Your task to perform on an android device: turn on location history Image 0: 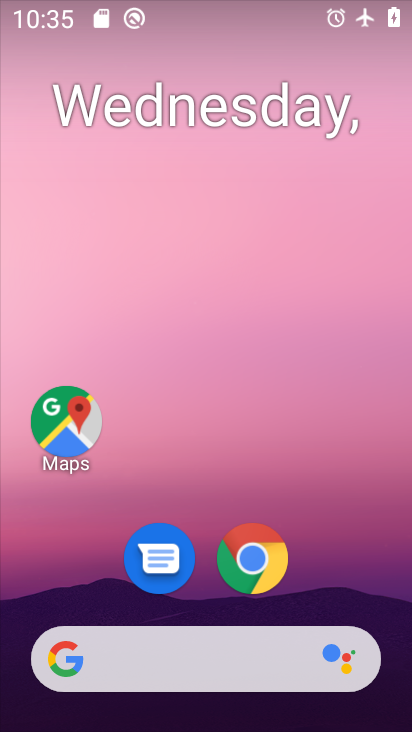
Step 0: drag from (331, 588) to (359, 120)
Your task to perform on an android device: turn on location history Image 1: 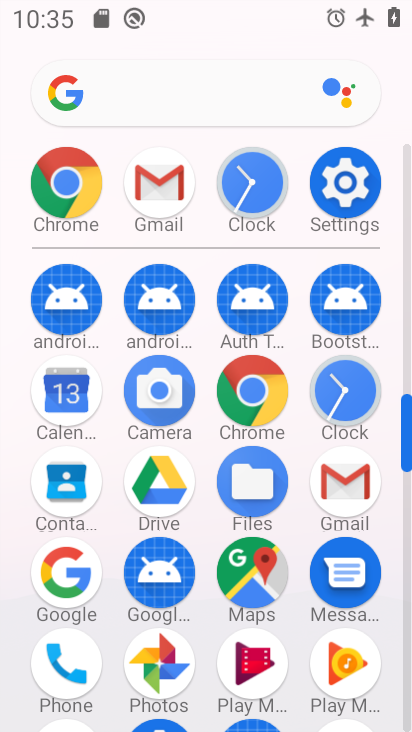
Step 1: click (351, 200)
Your task to perform on an android device: turn on location history Image 2: 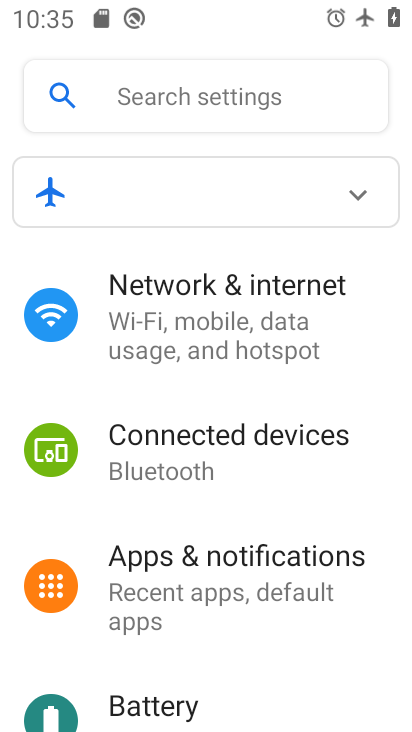
Step 2: drag from (354, 412) to (357, 332)
Your task to perform on an android device: turn on location history Image 3: 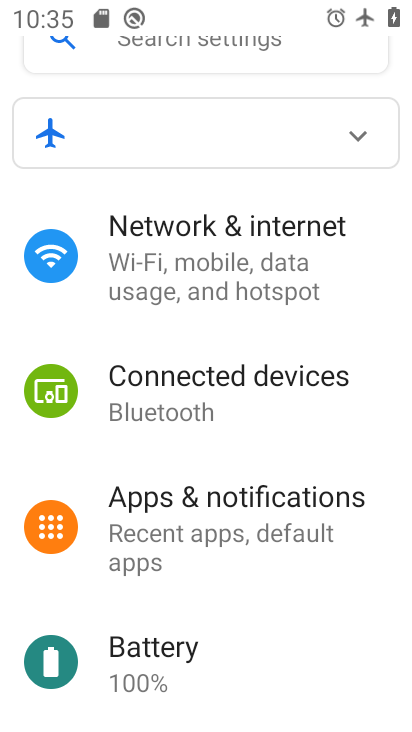
Step 3: drag from (363, 452) to (365, 360)
Your task to perform on an android device: turn on location history Image 4: 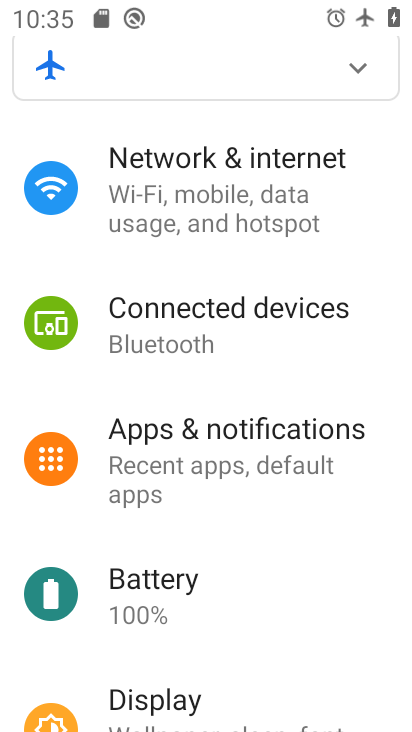
Step 4: drag from (364, 516) to (361, 421)
Your task to perform on an android device: turn on location history Image 5: 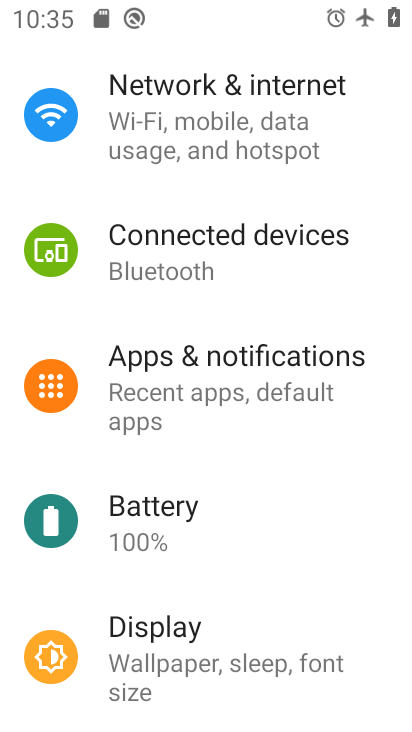
Step 5: drag from (359, 520) to (361, 428)
Your task to perform on an android device: turn on location history Image 6: 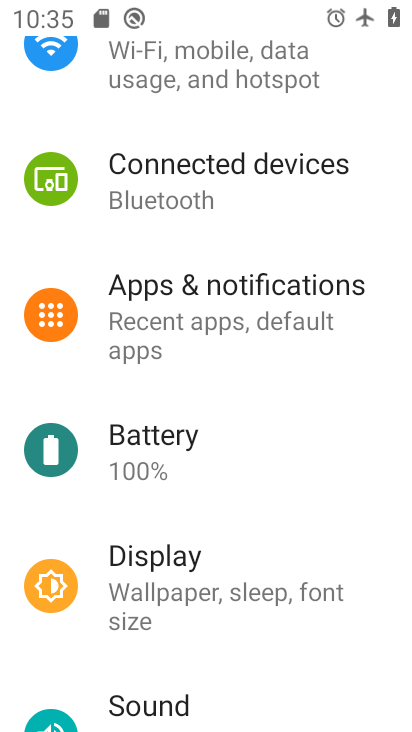
Step 6: drag from (354, 562) to (350, 457)
Your task to perform on an android device: turn on location history Image 7: 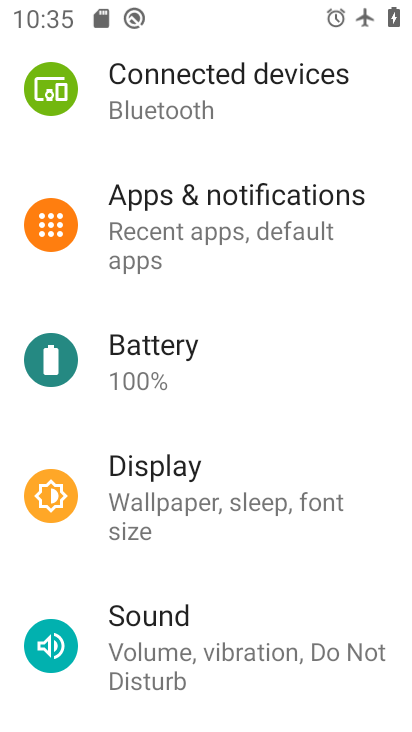
Step 7: drag from (348, 554) to (345, 452)
Your task to perform on an android device: turn on location history Image 8: 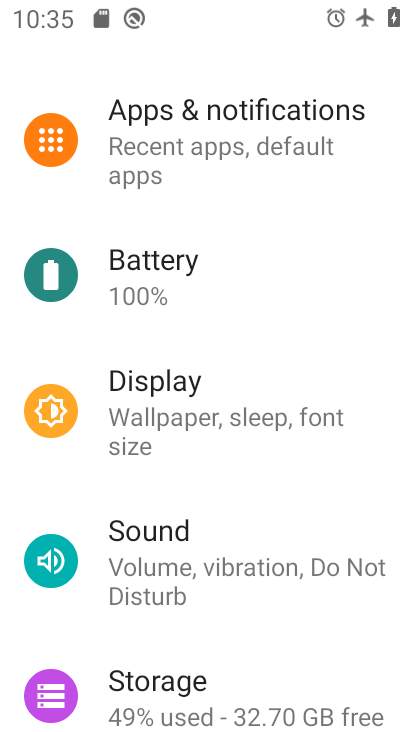
Step 8: drag from (345, 589) to (343, 497)
Your task to perform on an android device: turn on location history Image 9: 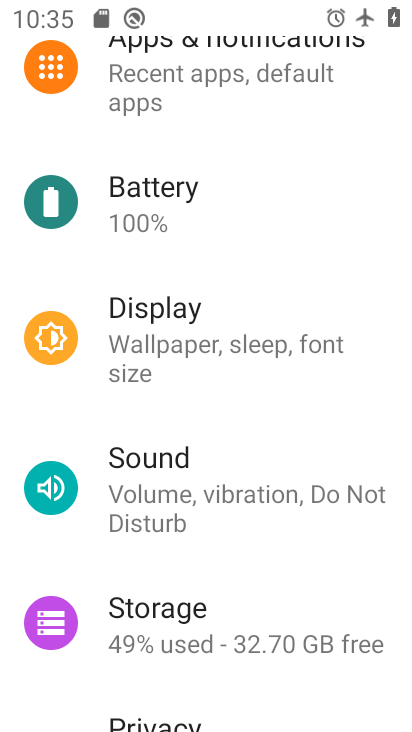
Step 9: drag from (346, 572) to (348, 467)
Your task to perform on an android device: turn on location history Image 10: 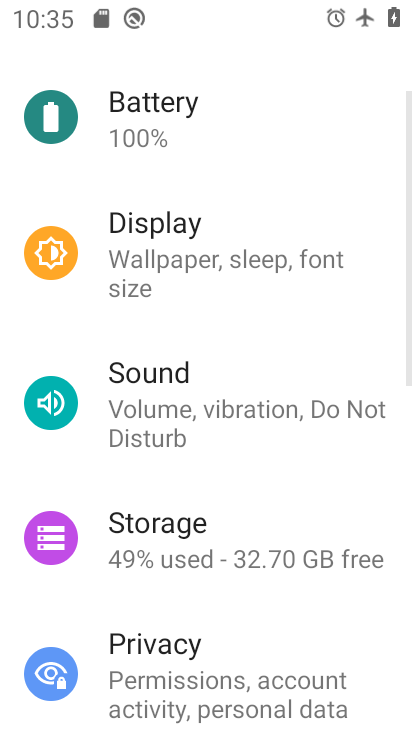
Step 10: drag from (343, 605) to (344, 481)
Your task to perform on an android device: turn on location history Image 11: 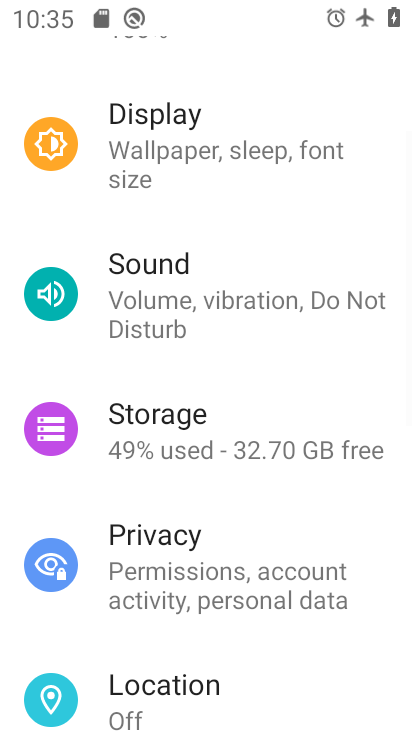
Step 11: drag from (364, 644) to (357, 458)
Your task to perform on an android device: turn on location history Image 12: 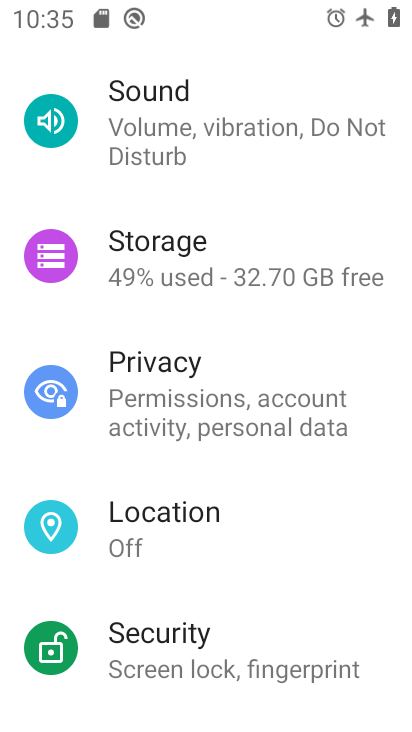
Step 12: drag from (318, 581) to (311, 391)
Your task to perform on an android device: turn on location history Image 13: 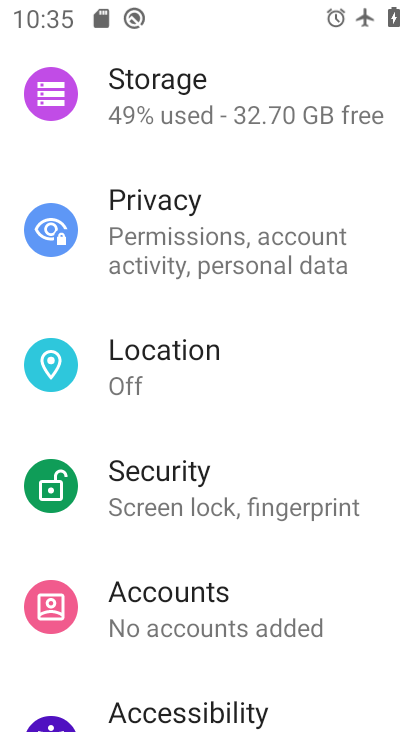
Step 13: drag from (269, 515) to (263, 351)
Your task to perform on an android device: turn on location history Image 14: 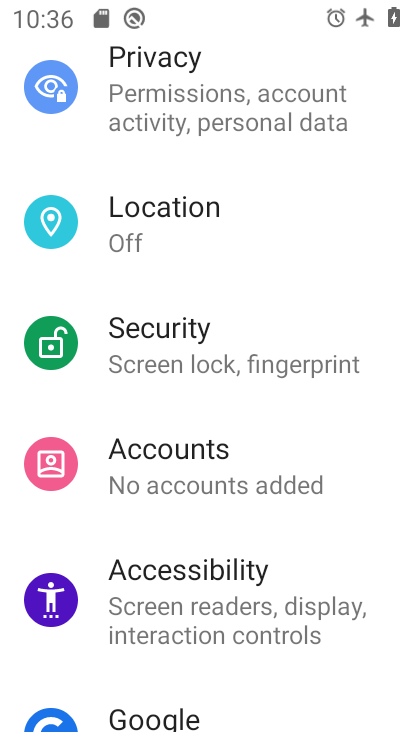
Step 14: click (195, 238)
Your task to perform on an android device: turn on location history Image 15: 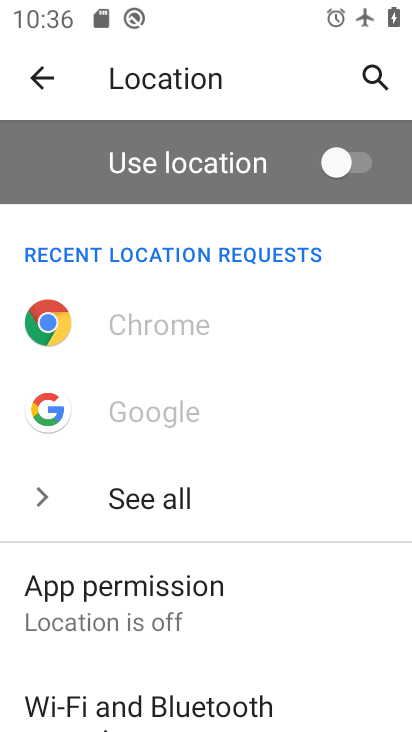
Step 15: drag from (345, 559) to (316, 401)
Your task to perform on an android device: turn on location history Image 16: 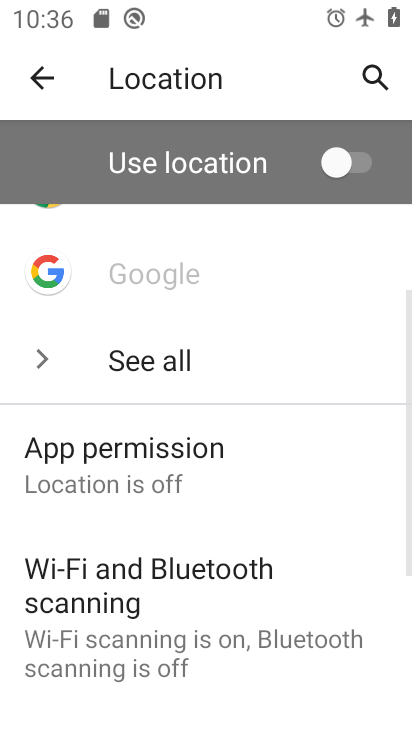
Step 16: drag from (339, 564) to (331, 369)
Your task to perform on an android device: turn on location history Image 17: 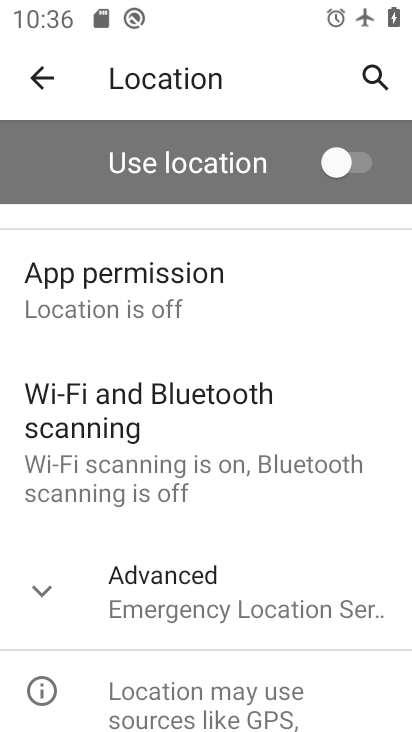
Step 17: click (274, 614)
Your task to perform on an android device: turn on location history Image 18: 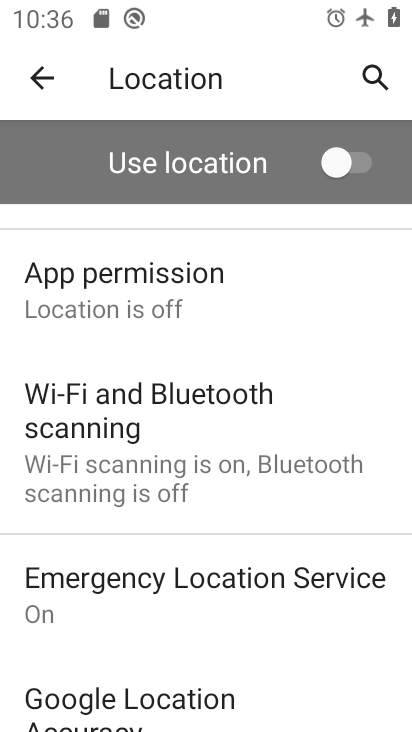
Step 18: drag from (275, 608) to (276, 515)
Your task to perform on an android device: turn on location history Image 19: 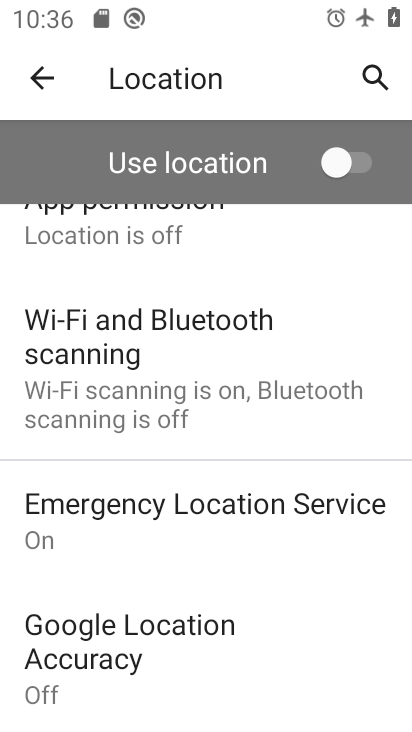
Step 19: drag from (319, 649) to (300, 476)
Your task to perform on an android device: turn on location history Image 20: 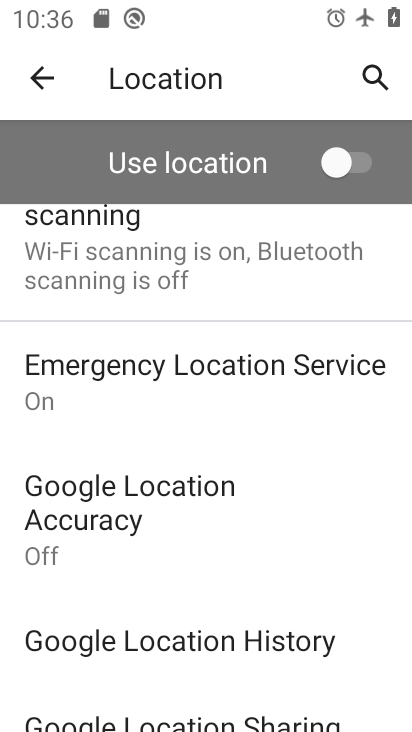
Step 20: drag from (370, 670) to (343, 520)
Your task to perform on an android device: turn on location history Image 21: 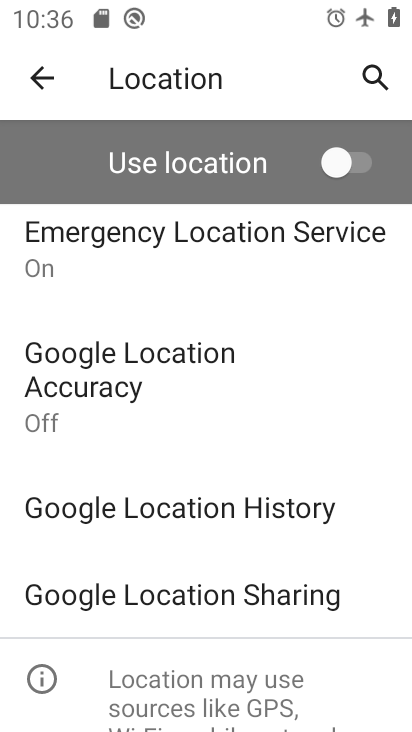
Step 21: click (215, 513)
Your task to perform on an android device: turn on location history Image 22: 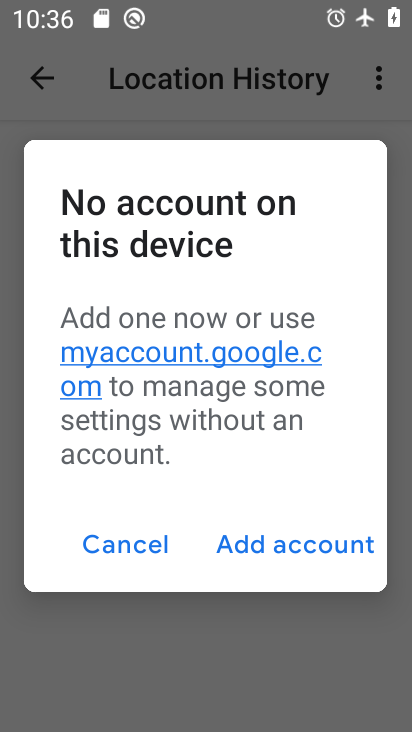
Step 22: click (132, 550)
Your task to perform on an android device: turn on location history Image 23: 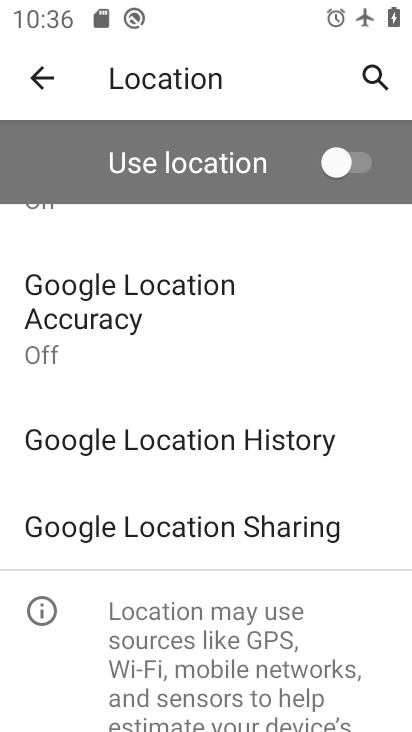
Step 23: task complete